Your task to perform on an android device: turn smart compose on in the gmail app Image 0: 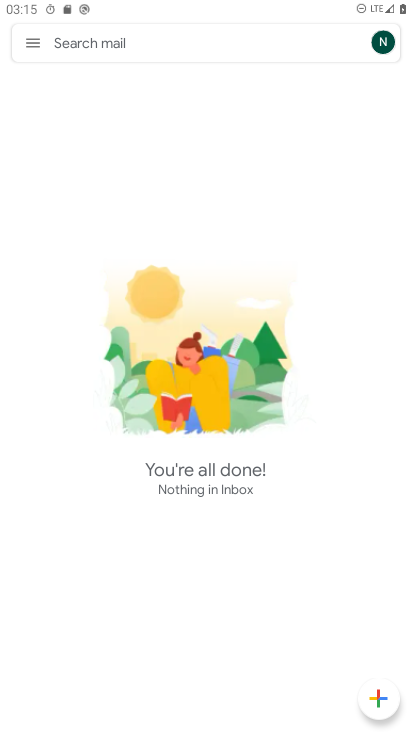
Step 0: press home button
Your task to perform on an android device: turn smart compose on in the gmail app Image 1: 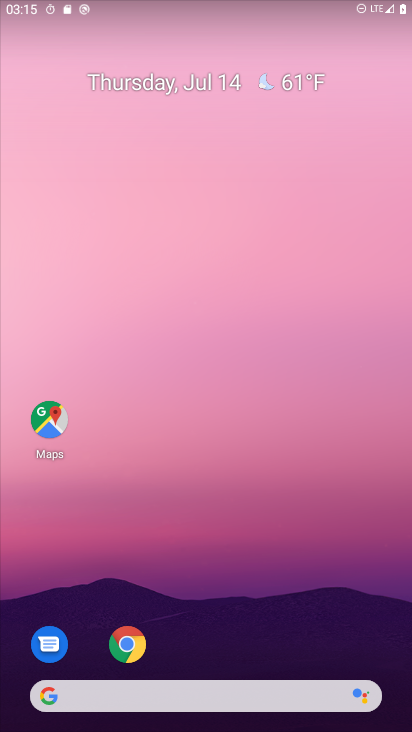
Step 1: drag from (264, 622) to (132, 7)
Your task to perform on an android device: turn smart compose on in the gmail app Image 2: 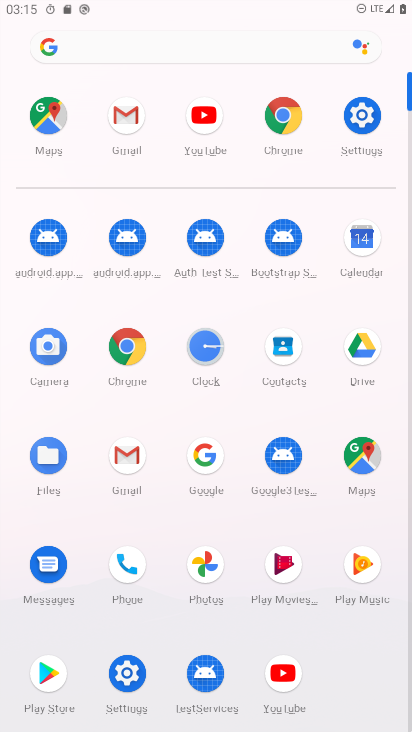
Step 2: click (127, 117)
Your task to perform on an android device: turn smart compose on in the gmail app Image 3: 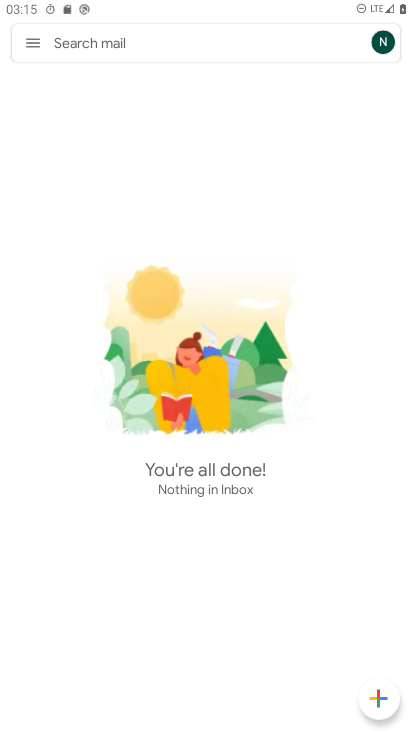
Step 3: click (36, 42)
Your task to perform on an android device: turn smart compose on in the gmail app Image 4: 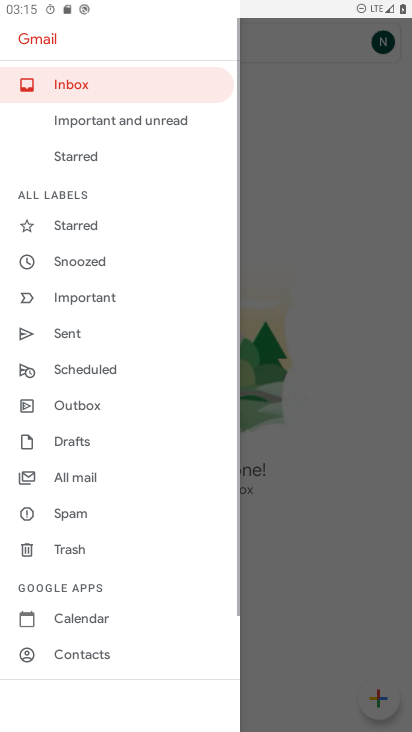
Step 4: drag from (78, 651) to (109, 262)
Your task to perform on an android device: turn smart compose on in the gmail app Image 5: 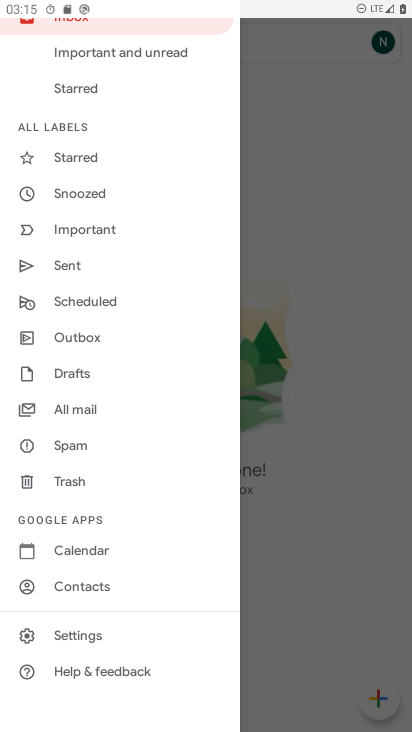
Step 5: click (76, 641)
Your task to perform on an android device: turn smart compose on in the gmail app Image 6: 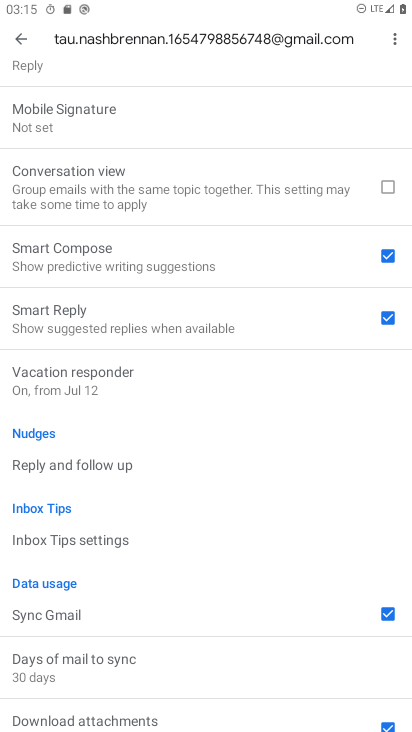
Step 6: task complete